Your task to perform on an android device: toggle airplane mode Image 0: 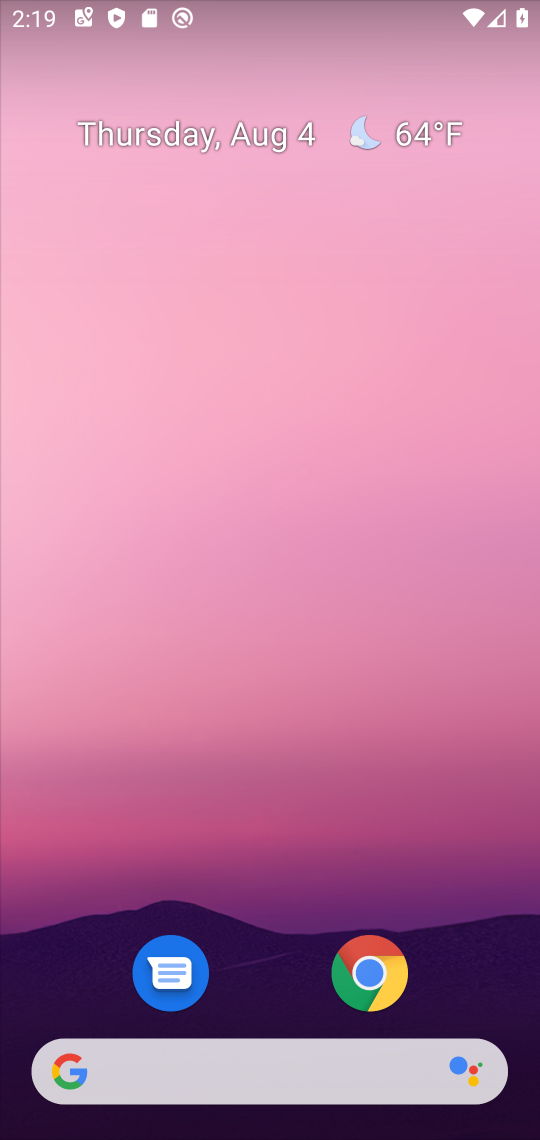
Step 0: press home button
Your task to perform on an android device: toggle airplane mode Image 1: 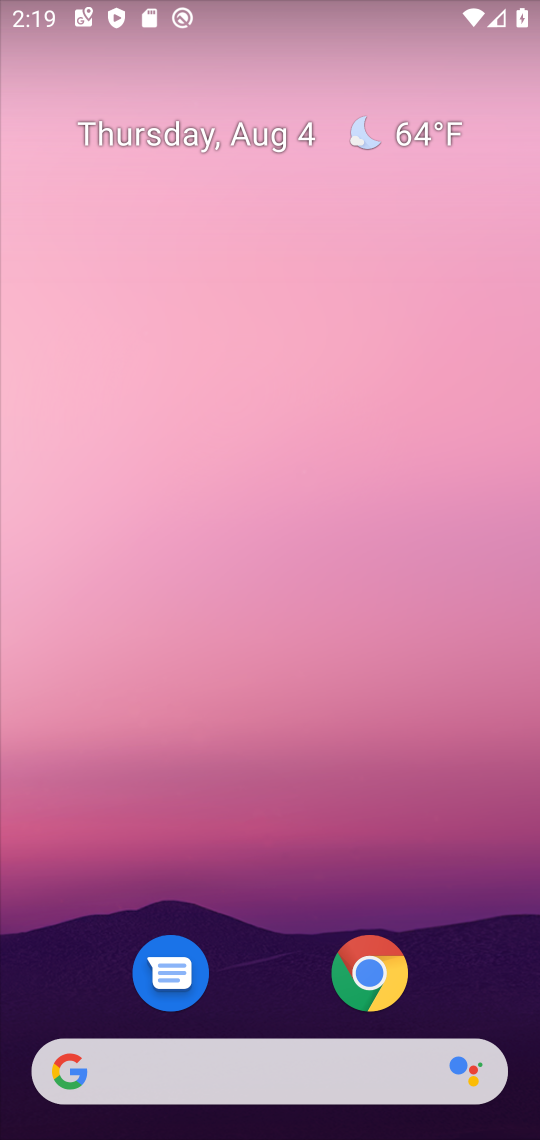
Step 1: drag from (277, 1001) to (235, 150)
Your task to perform on an android device: toggle airplane mode Image 2: 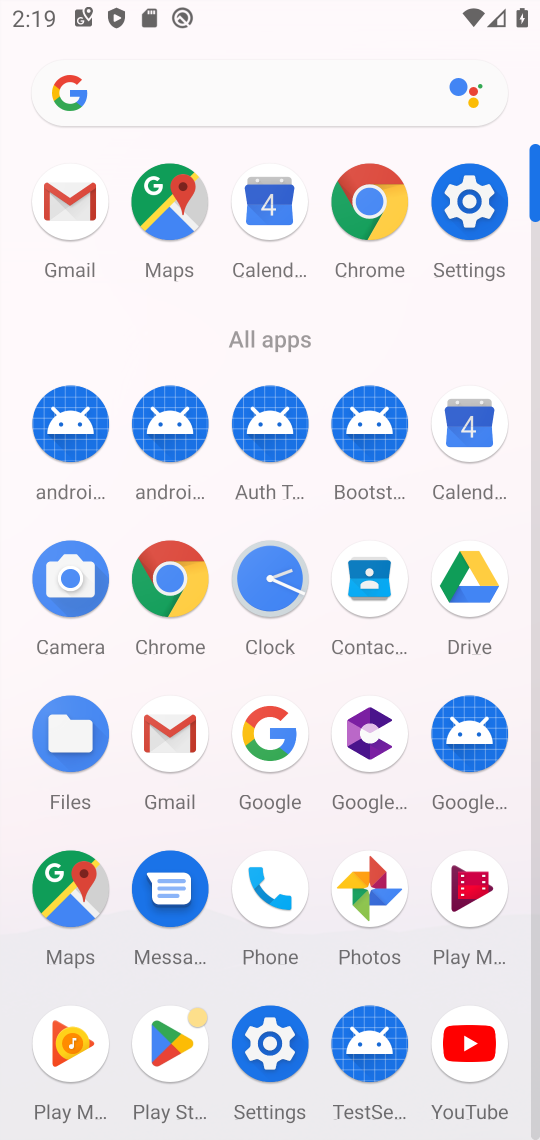
Step 2: click (488, 201)
Your task to perform on an android device: toggle airplane mode Image 3: 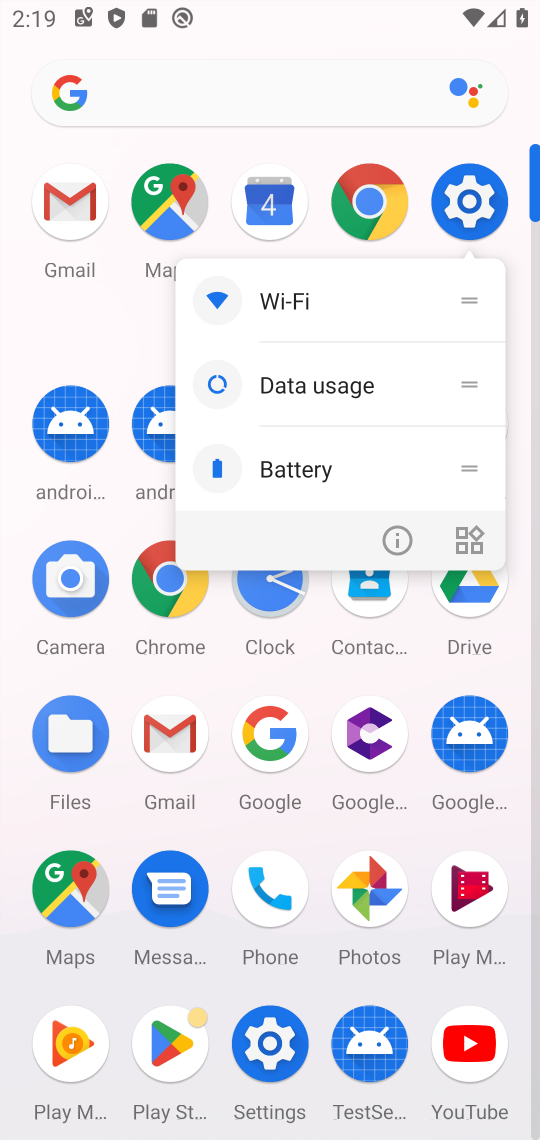
Step 3: click (273, 1055)
Your task to perform on an android device: toggle airplane mode Image 4: 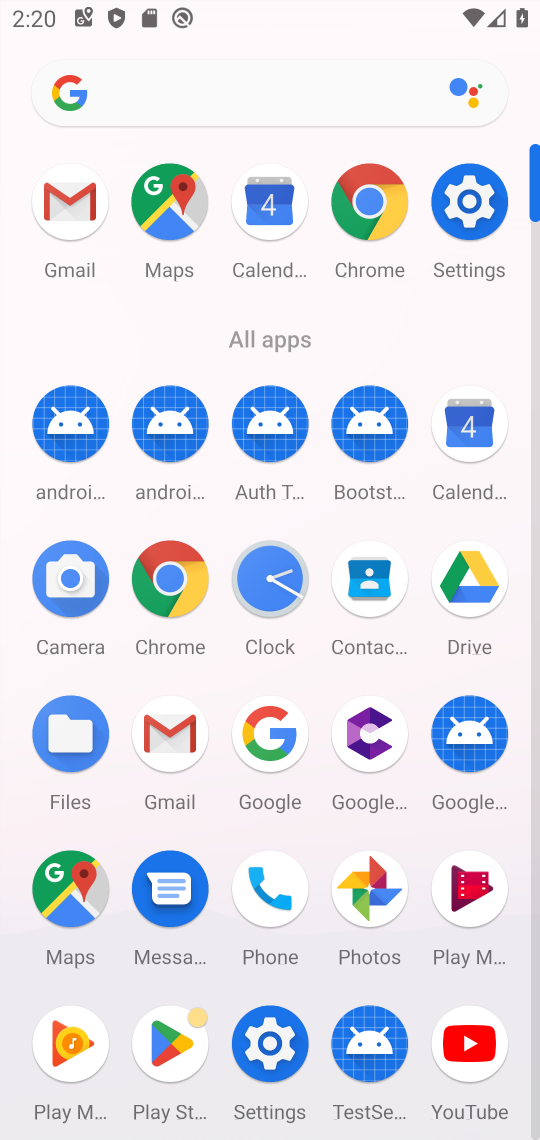
Step 4: click (240, 1067)
Your task to perform on an android device: toggle airplane mode Image 5: 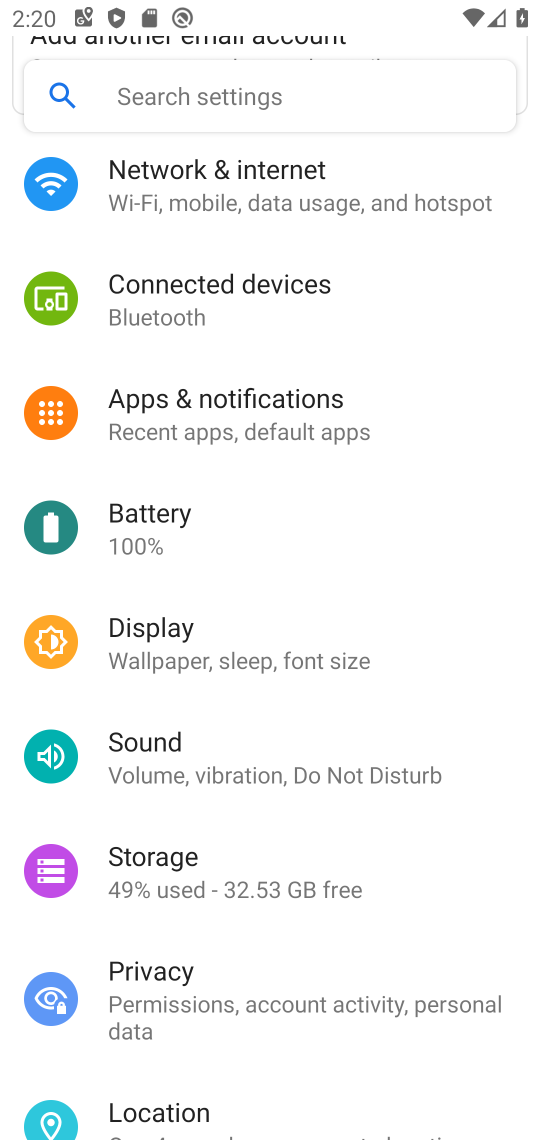
Step 5: click (281, 1046)
Your task to perform on an android device: toggle airplane mode Image 6: 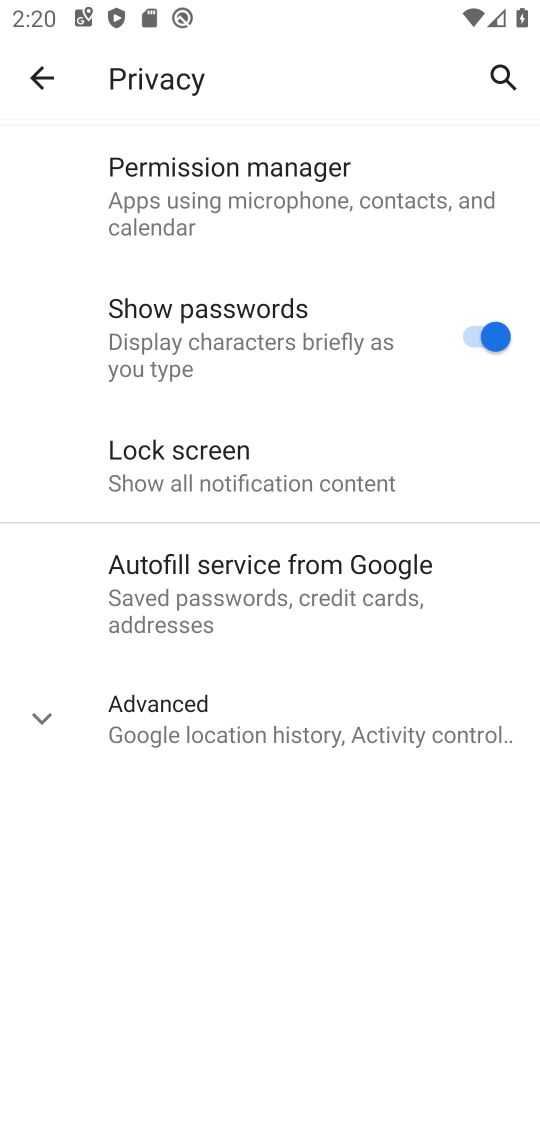
Step 6: click (57, 94)
Your task to perform on an android device: toggle airplane mode Image 7: 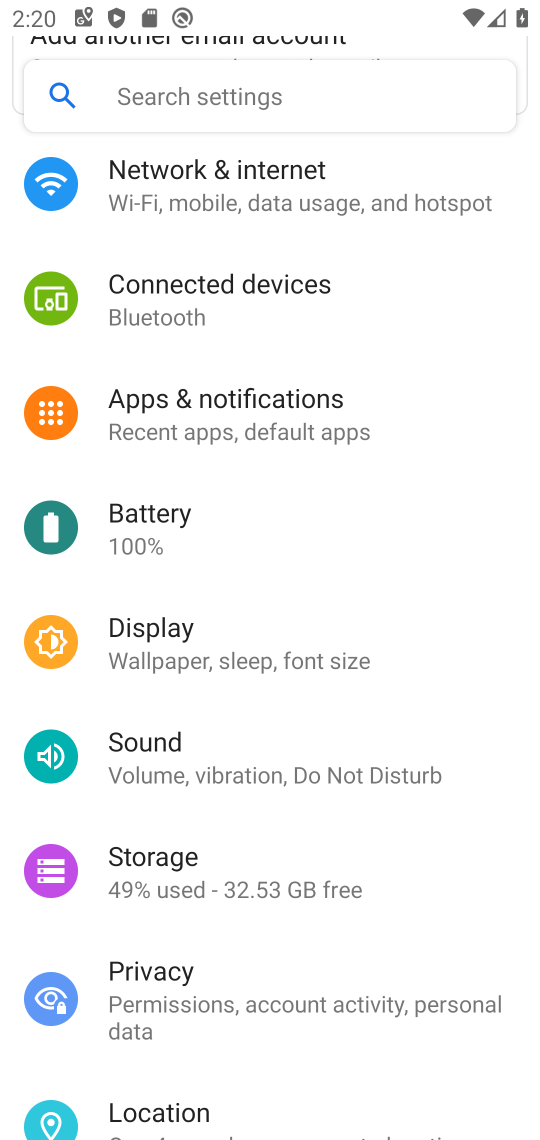
Step 7: drag from (191, 202) to (155, 1125)
Your task to perform on an android device: toggle airplane mode Image 8: 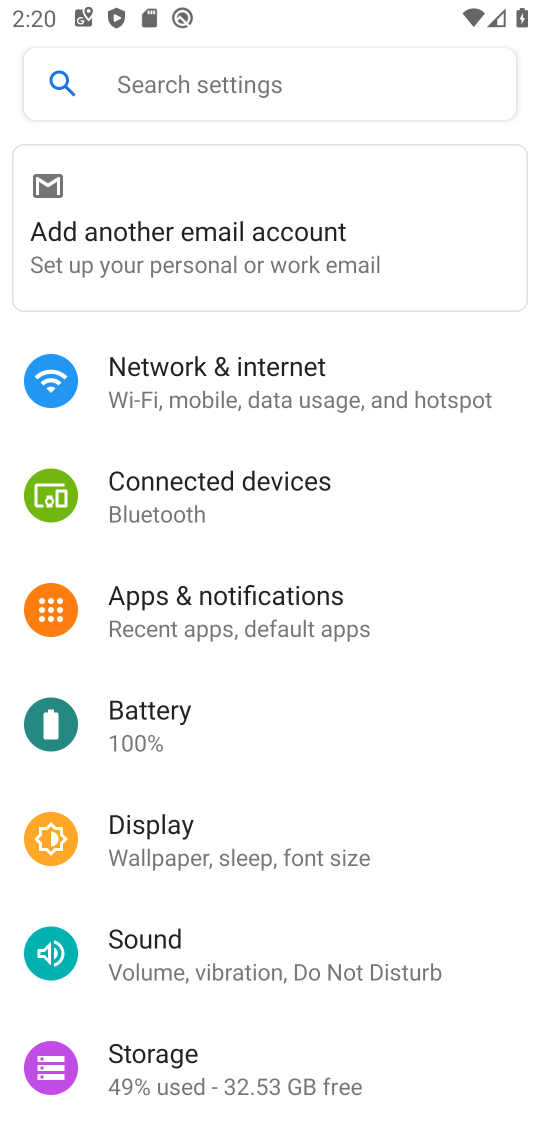
Step 8: click (215, 393)
Your task to perform on an android device: toggle airplane mode Image 9: 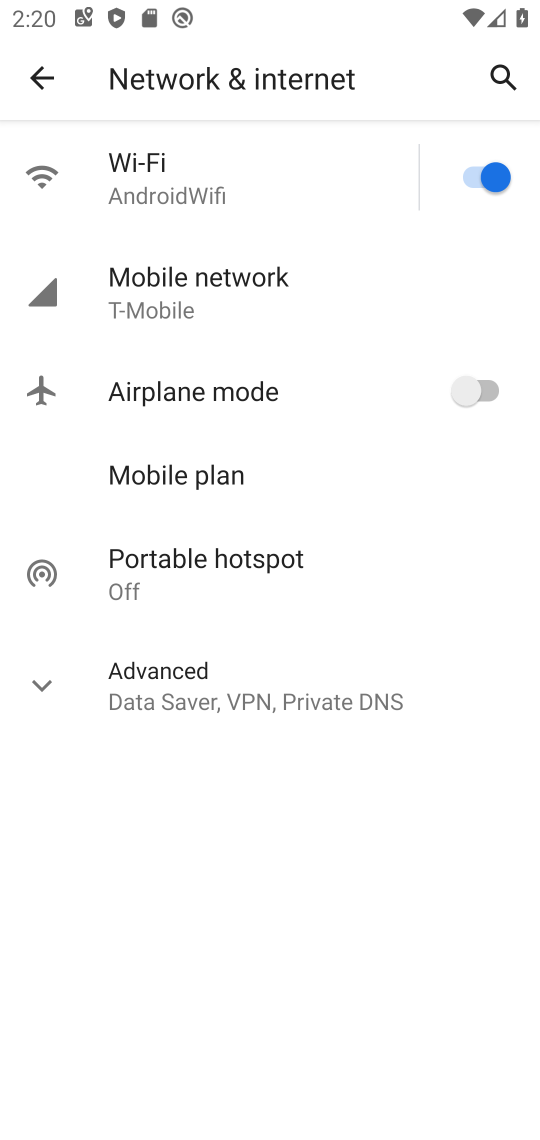
Step 9: click (472, 383)
Your task to perform on an android device: toggle airplane mode Image 10: 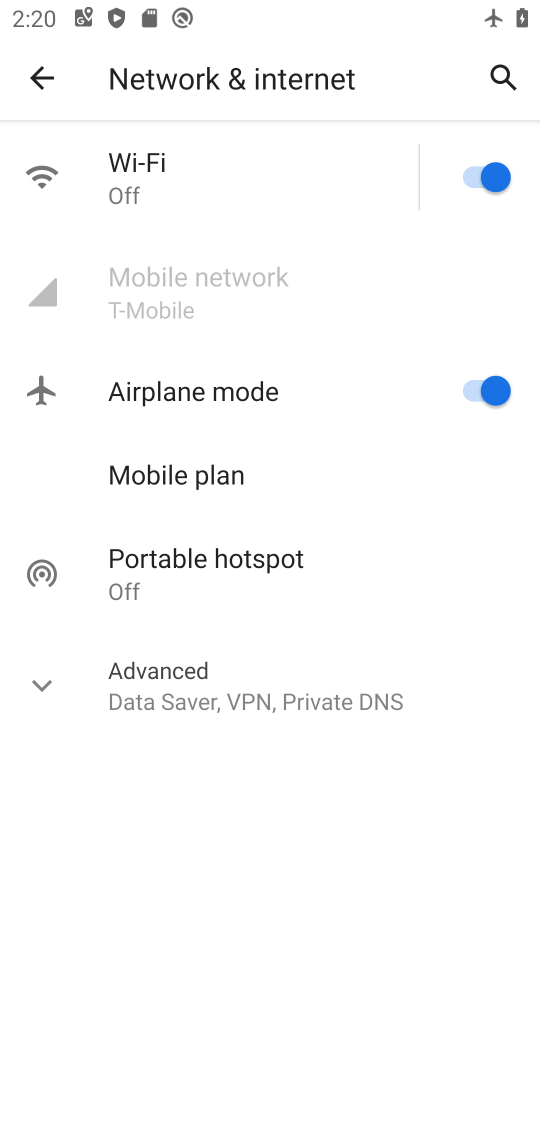
Step 10: task complete